Your task to perform on an android device: Do I have any events today? Image 0: 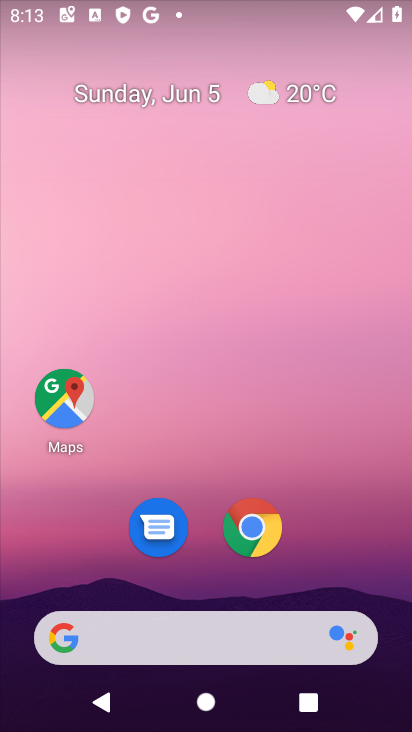
Step 0: click (160, 93)
Your task to perform on an android device: Do I have any events today? Image 1: 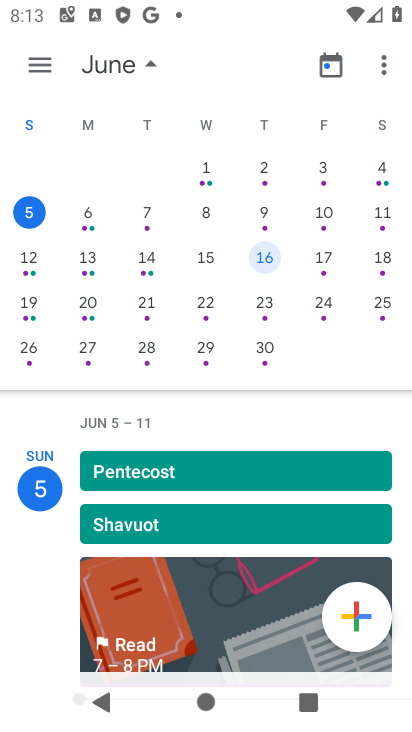
Step 1: task complete